Your task to perform on an android device: turn on improve location accuracy Image 0: 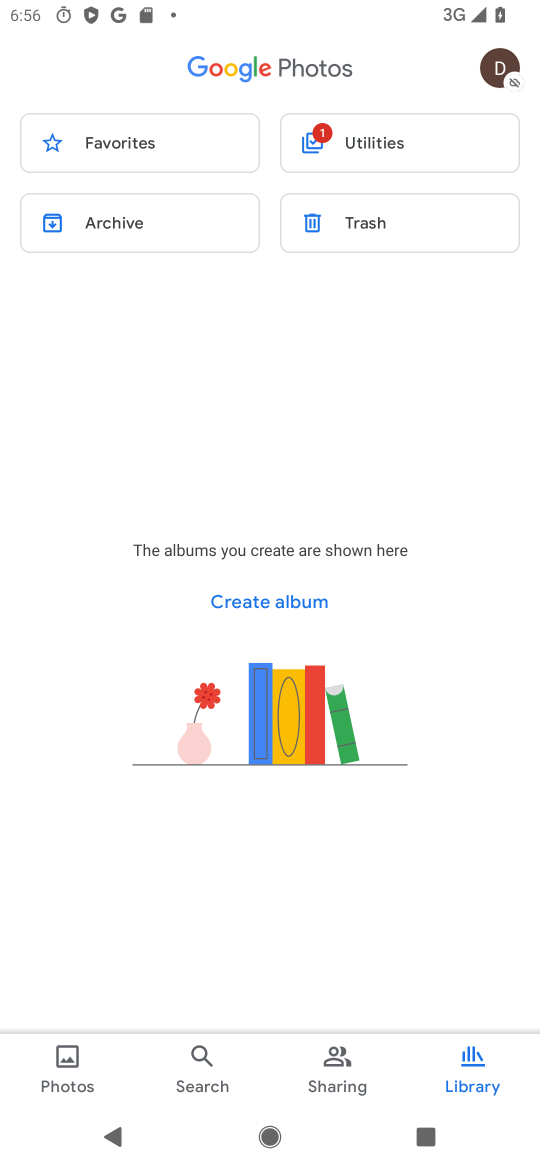
Step 0: press home button
Your task to perform on an android device: turn on improve location accuracy Image 1: 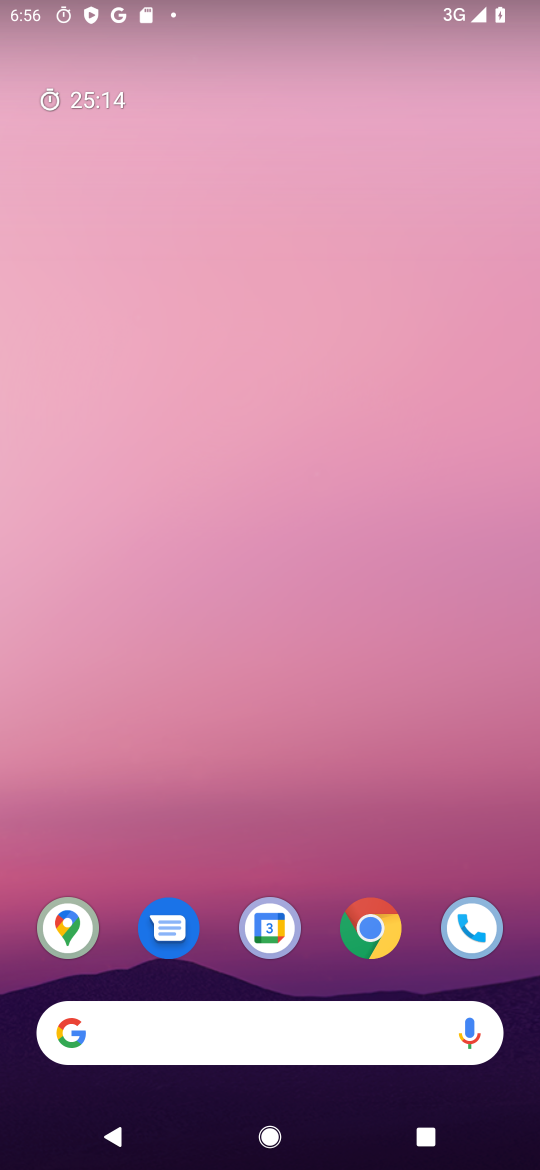
Step 1: drag from (316, 859) to (337, 76)
Your task to perform on an android device: turn on improve location accuracy Image 2: 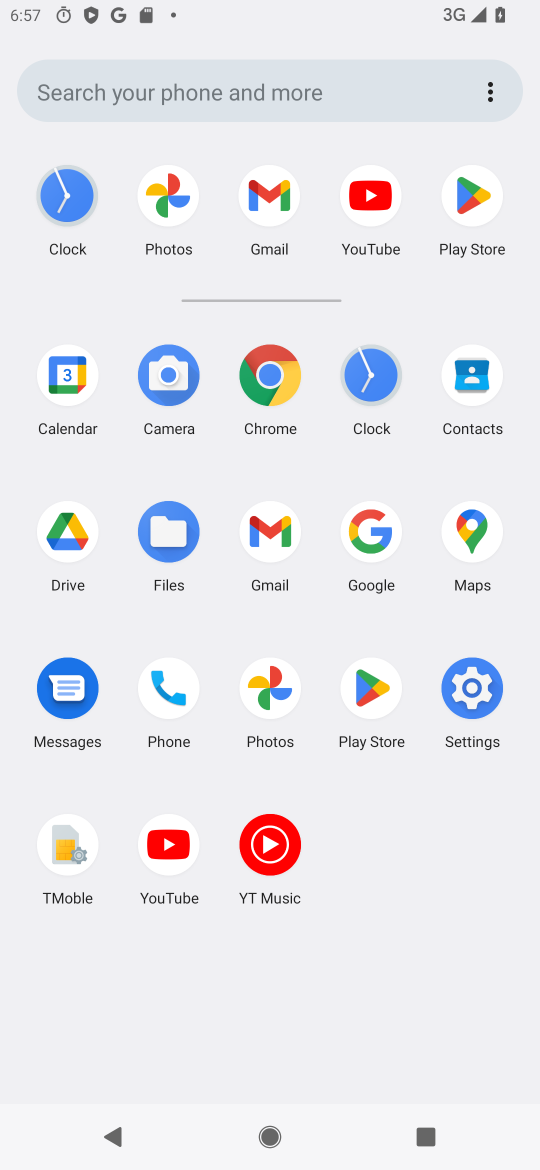
Step 2: click (472, 693)
Your task to perform on an android device: turn on improve location accuracy Image 3: 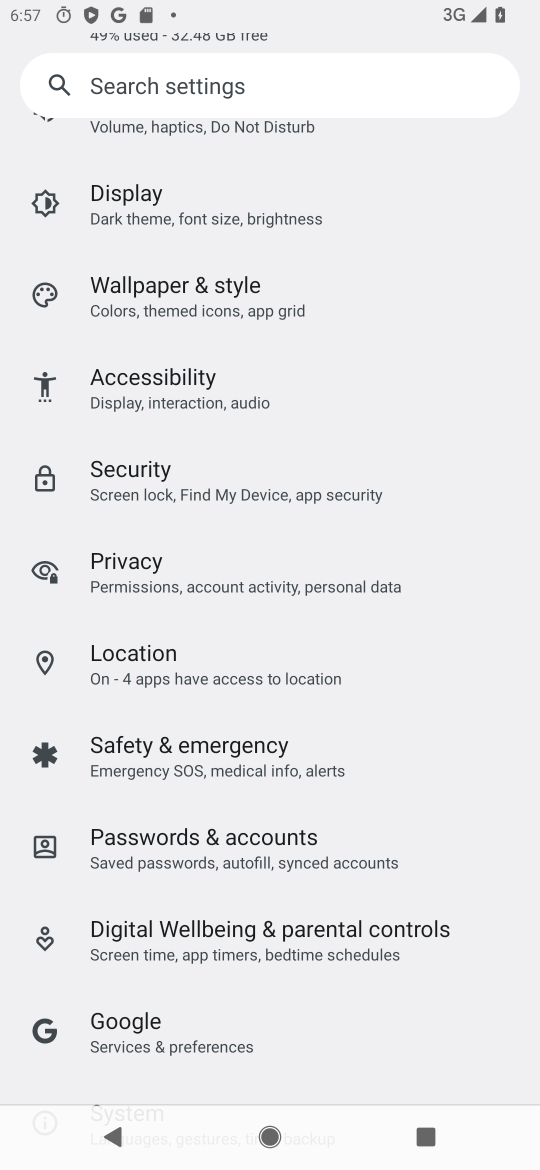
Step 3: drag from (444, 363) to (449, 736)
Your task to perform on an android device: turn on improve location accuracy Image 4: 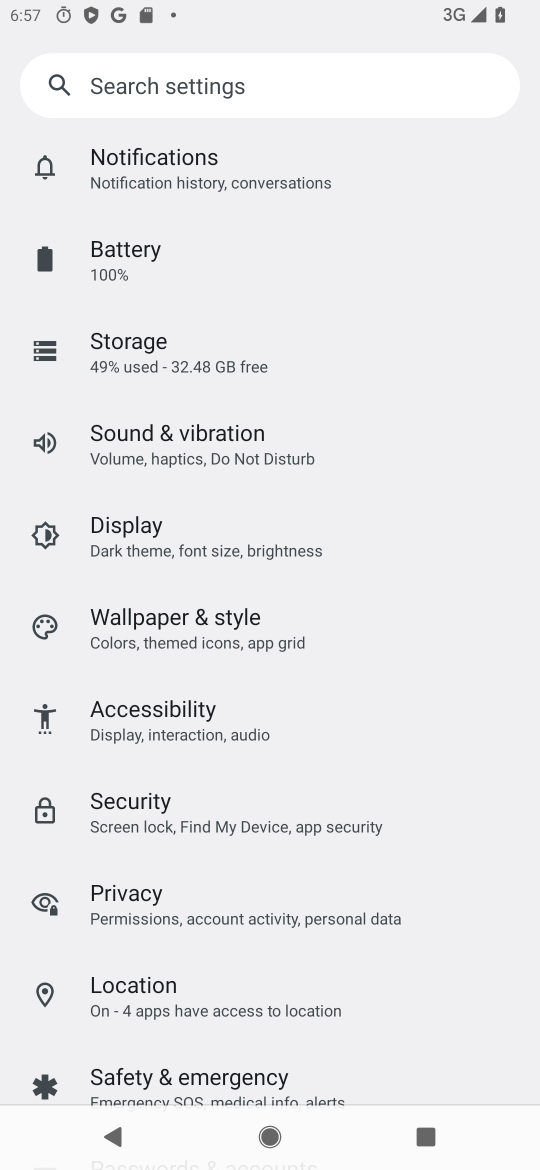
Step 4: drag from (430, 374) to (456, 878)
Your task to perform on an android device: turn on improve location accuracy Image 5: 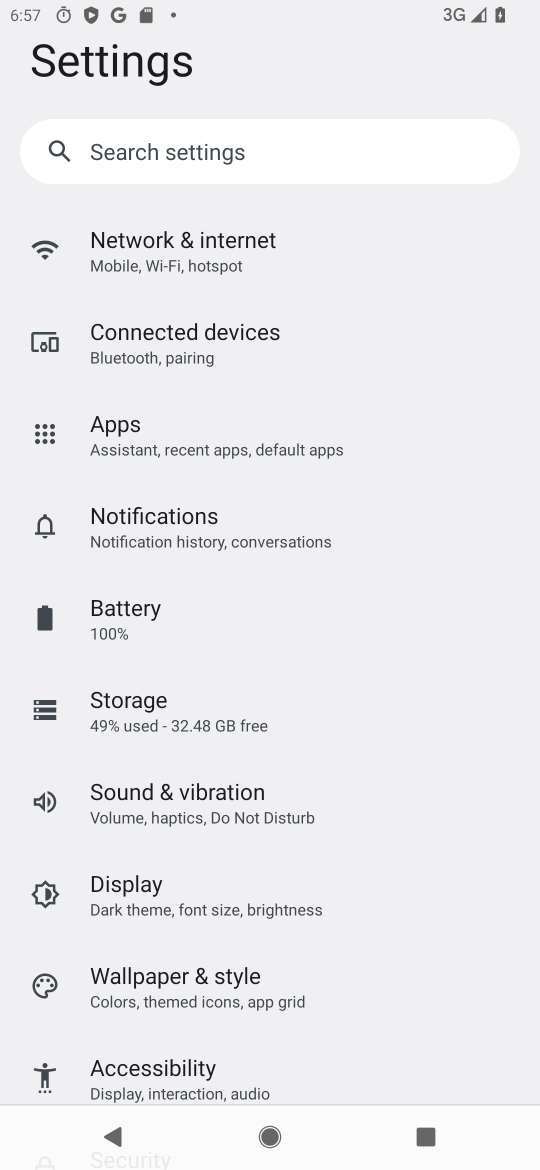
Step 5: drag from (453, 374) to (450, 802)
Your task to perform on an android device: turn on improve location accuracy Image 6: 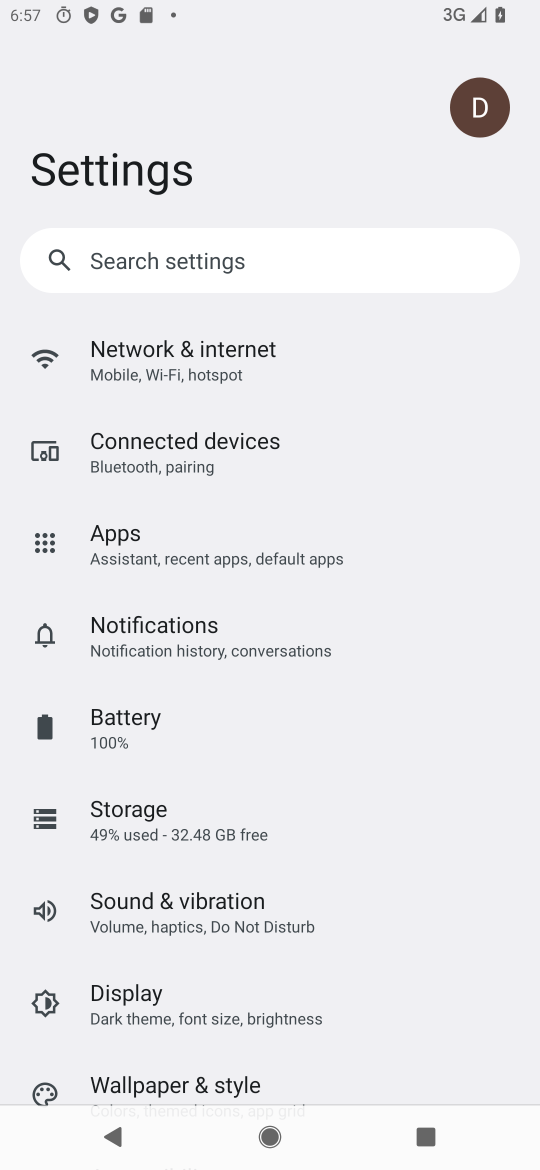
Step 6: drag from (426, 870) to (432, 534)
Your task to perform on an android device: turn on improve location accuracy Image 7: 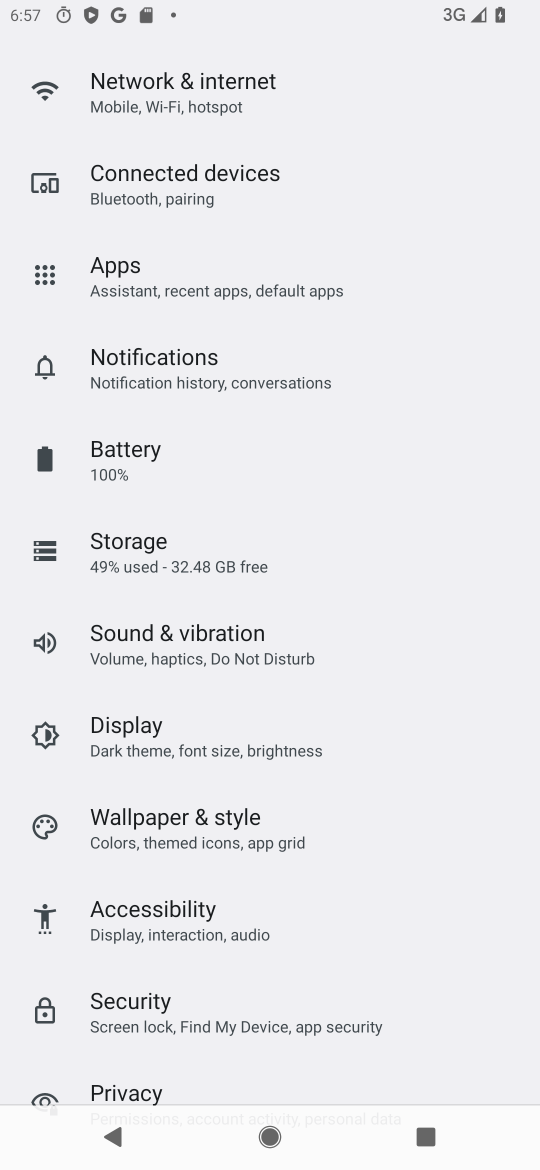
Step 7: drag from (435, 876) to (430, 561)
Your task to perform on an android device: turn on improve location accuracy Image 8: 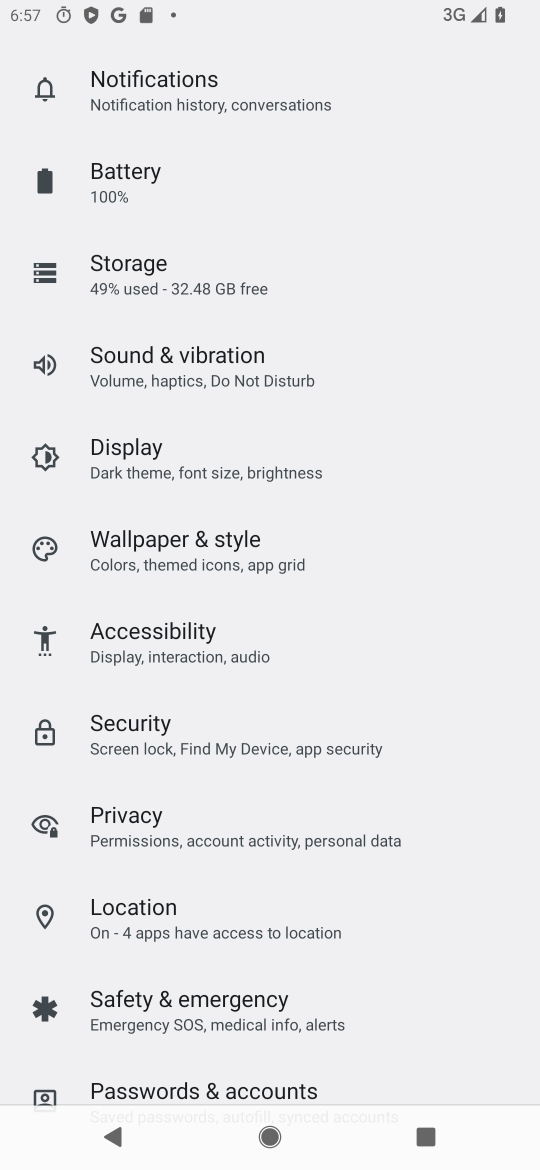
Step 8: drag from (444, 918) to (432, 567)
Your task to perform on an android device: turn on improve location accuracy Image 9: 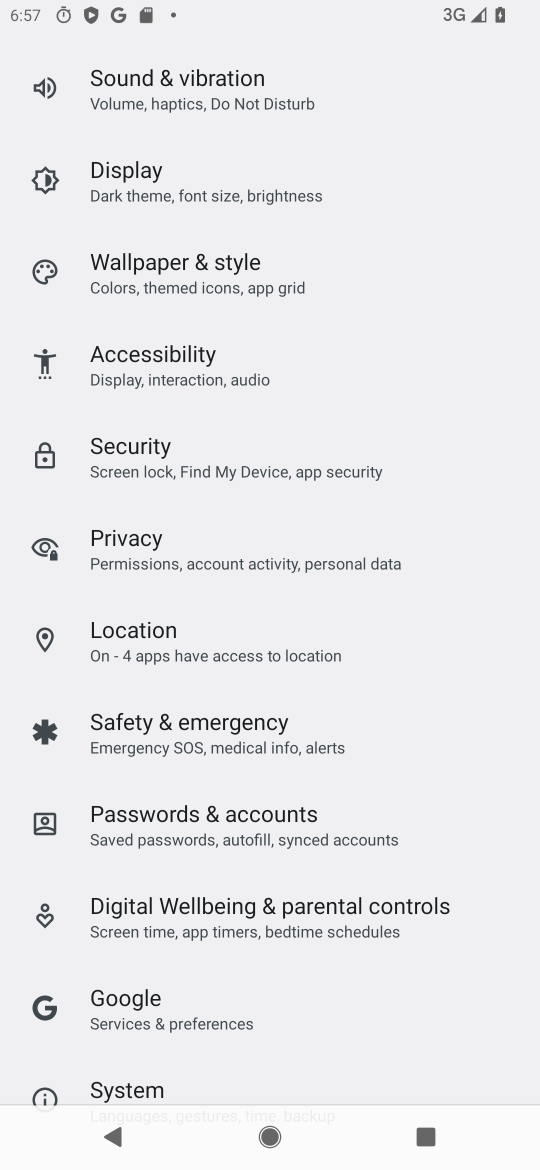
Step 9: drag from (427, 995) to (447, 628)
Your task to perform on an android device: turn on improve location accuracy Image 10: 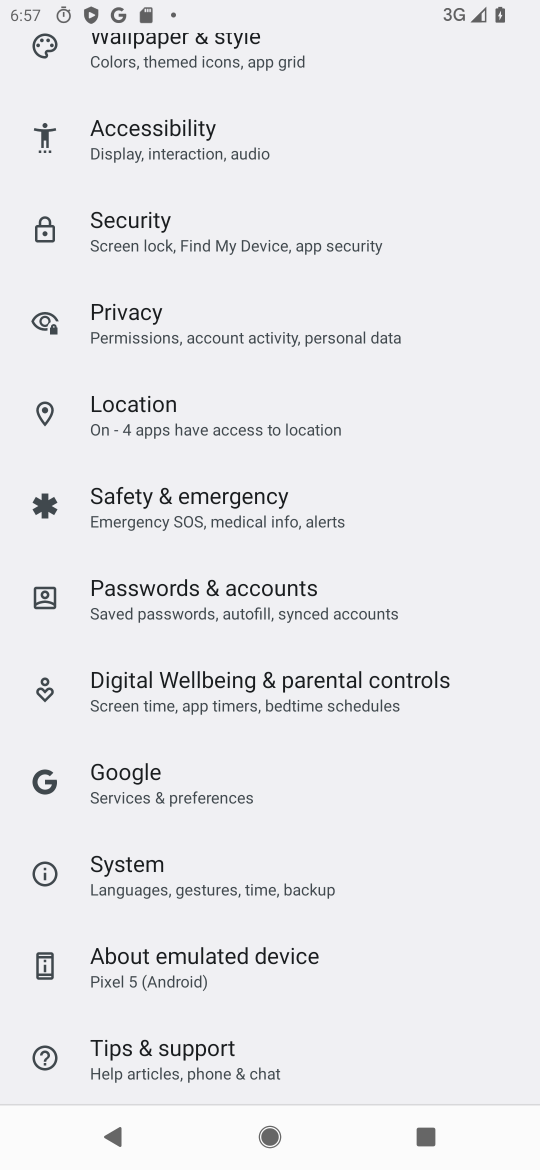
Step 10: drag from (456, 455) to (474, 852)
Your task to perform on an android device: turn on improve location accuracy Image 11: 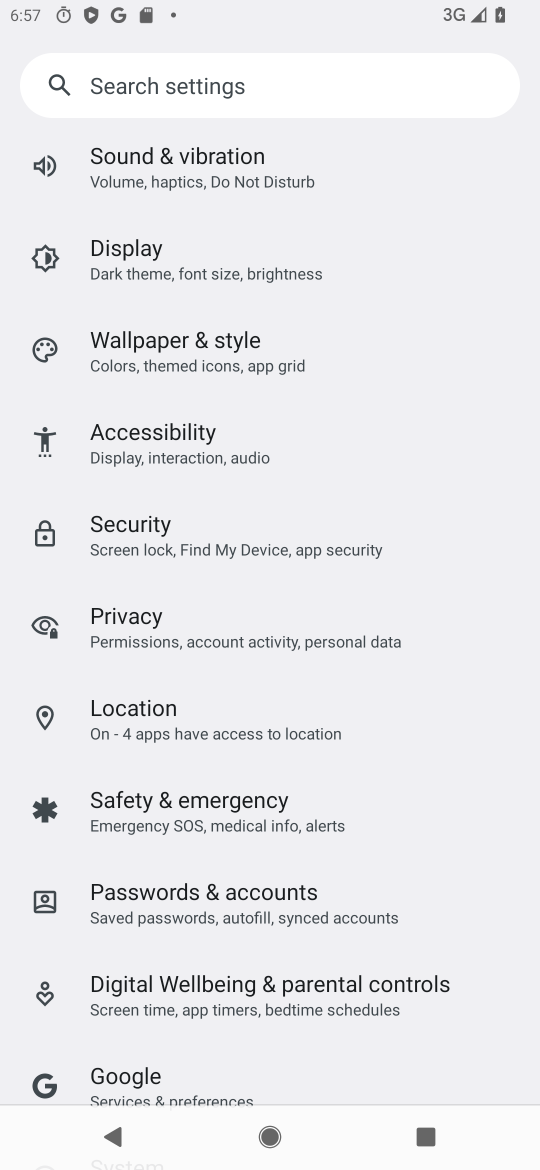
Step 11: drag from (447, 383) to (456, 759)
Your task to perform on an android device: turn on improve location accuracy Image 12: 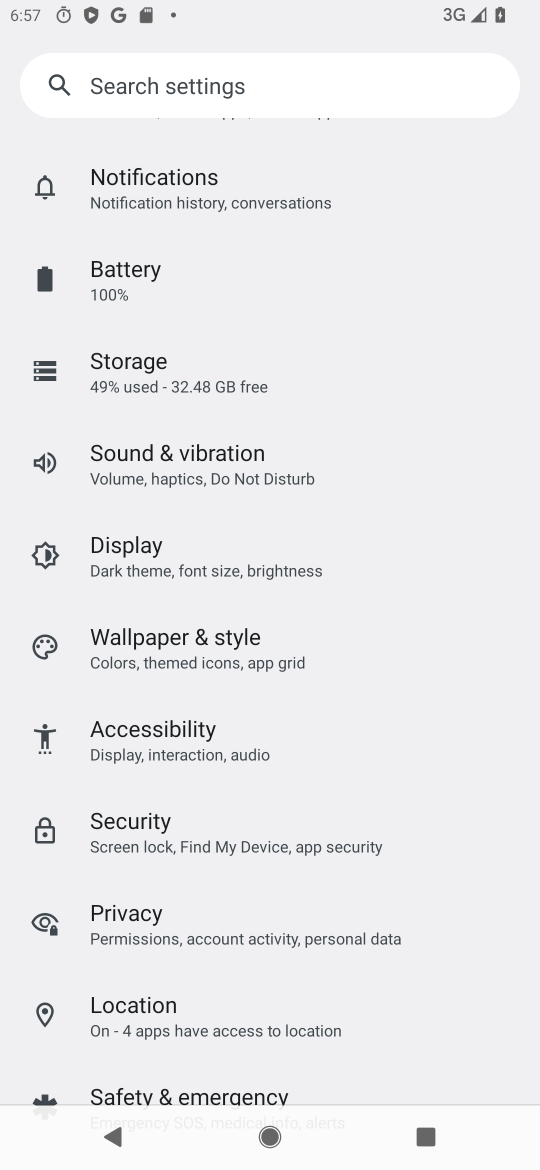
Step 12: drag from (428, 316) to (416, 752)
Your task to perform on an android device: turn on improve location accuracy Image 13: 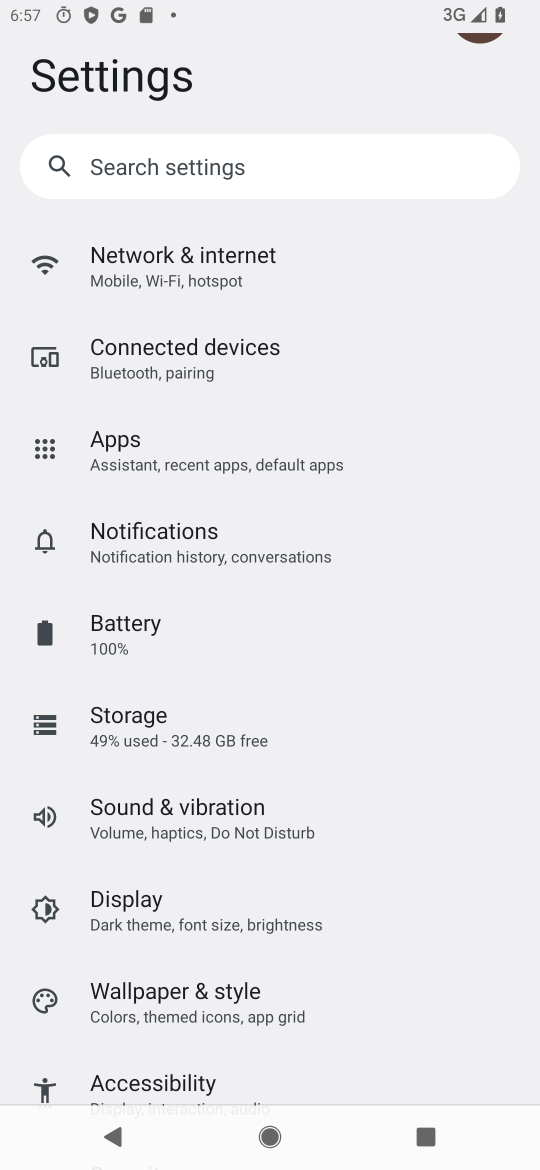
Step 13: drag from (447, 598) to (447, 677)
Your task to perform on an android device: turn on improve location accuracy Image 14: 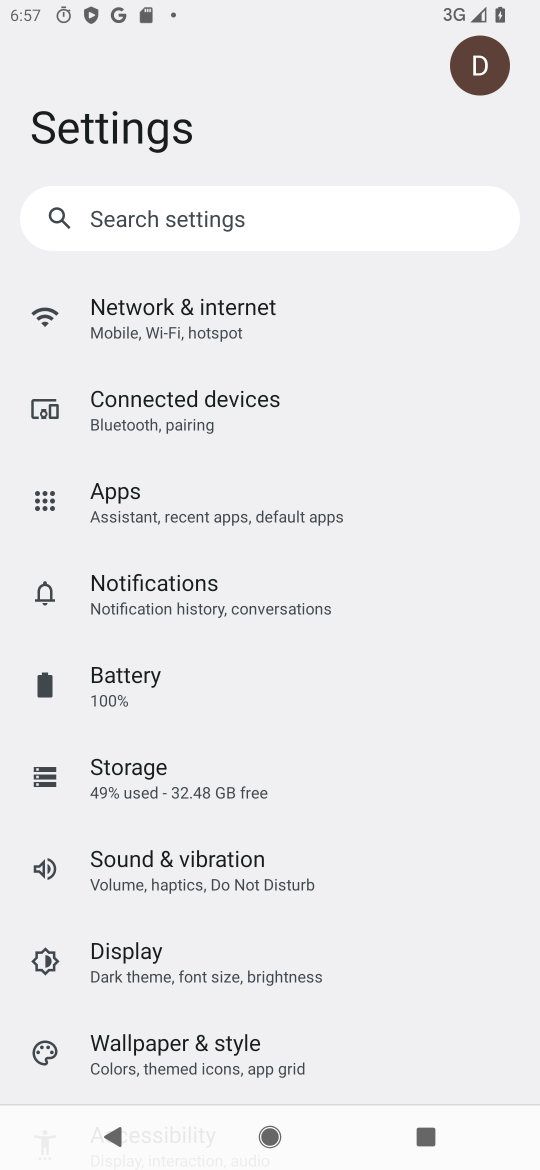
Step 14: drag from (404, 909) to (406, 591)
Your task to perform on an android device: turn on improve location accuracy Image 15: 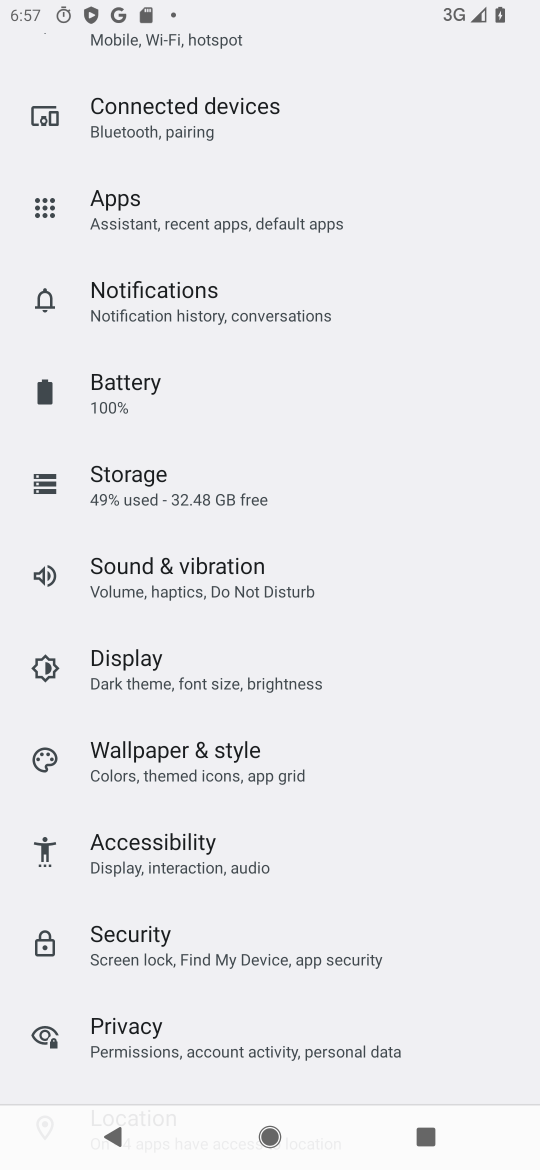
Step 15: drag from (427, 892) to (430, 616)
Your task to perform on an android device: turn on improve location accuracy Image 16: 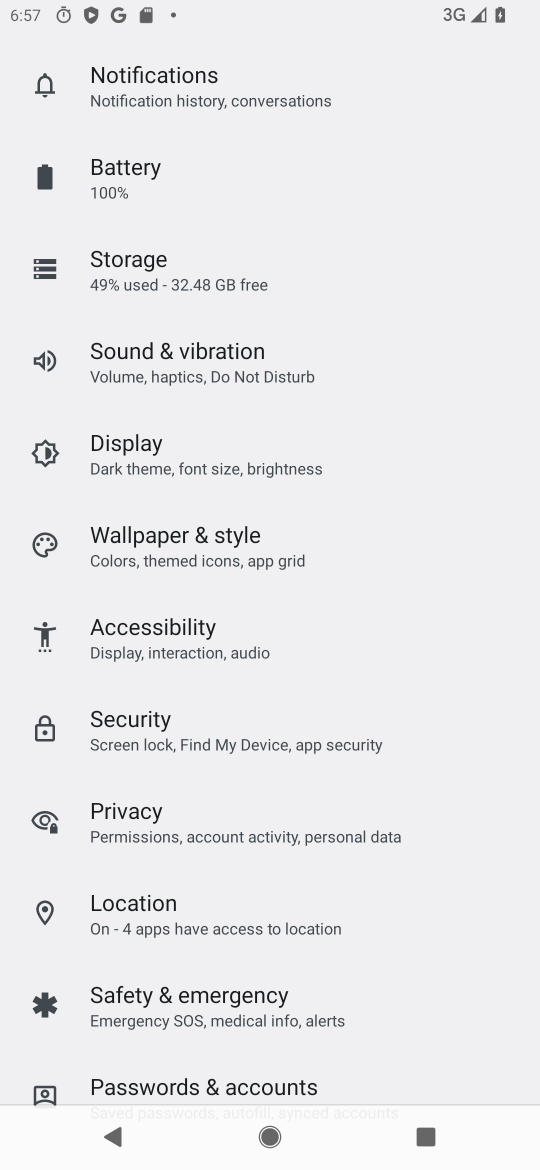
Step 16: drag from (430, 913) to (417, 678)
Your task to perform on an android device: turn on improve location accuracy Image 17: 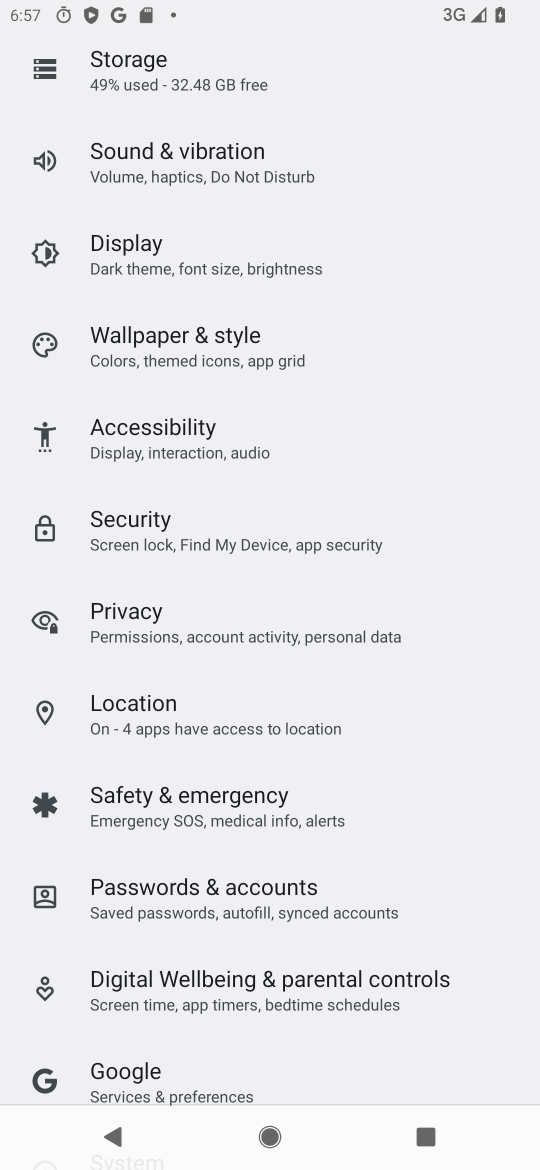
Step 17: drag from (418, 832) to (443, 558)
Your task to perform on an android device: turn on improve location accuracy Image 18: 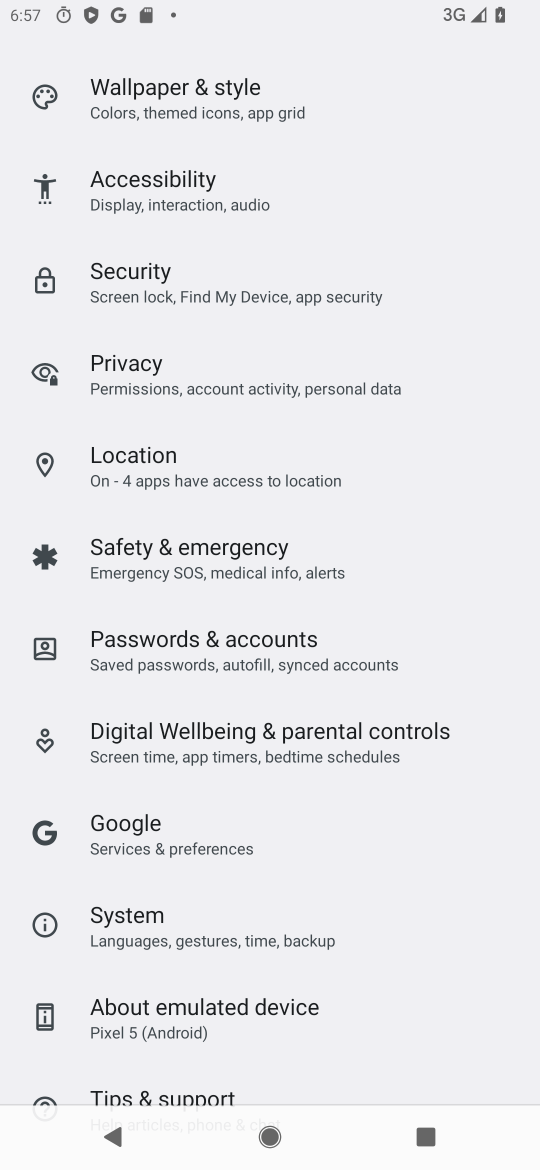
Step 18: drag from (450, 411) to (427, 788)
Your task to perform on an android device: turn on improve location accuracy Image 19: 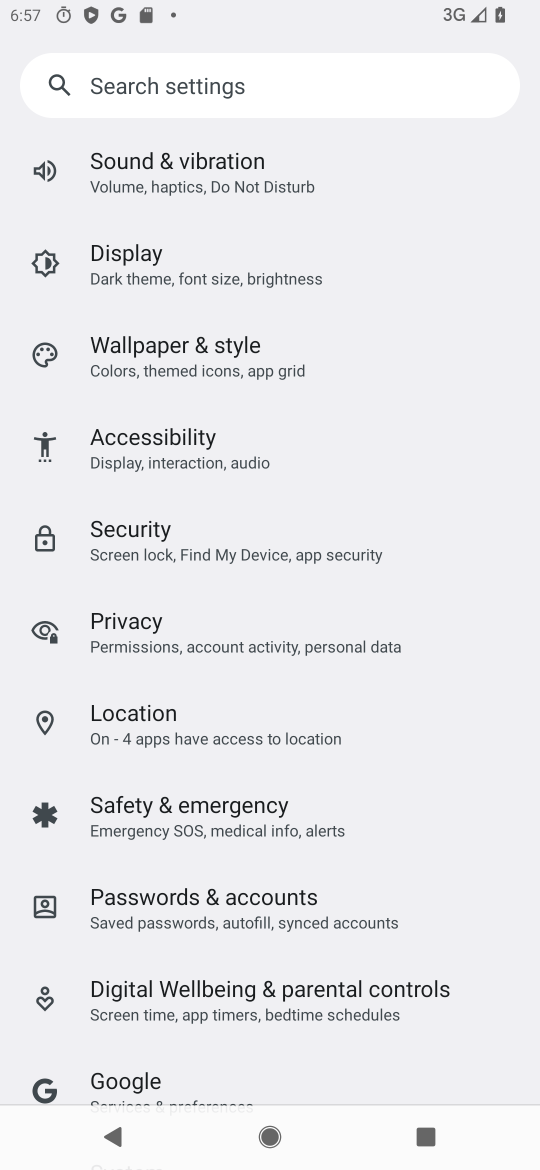
Step 19: drag from (425, 449) to (425, 806)
Your task to perform on an android device: turn on improve location accuracy Image 20: 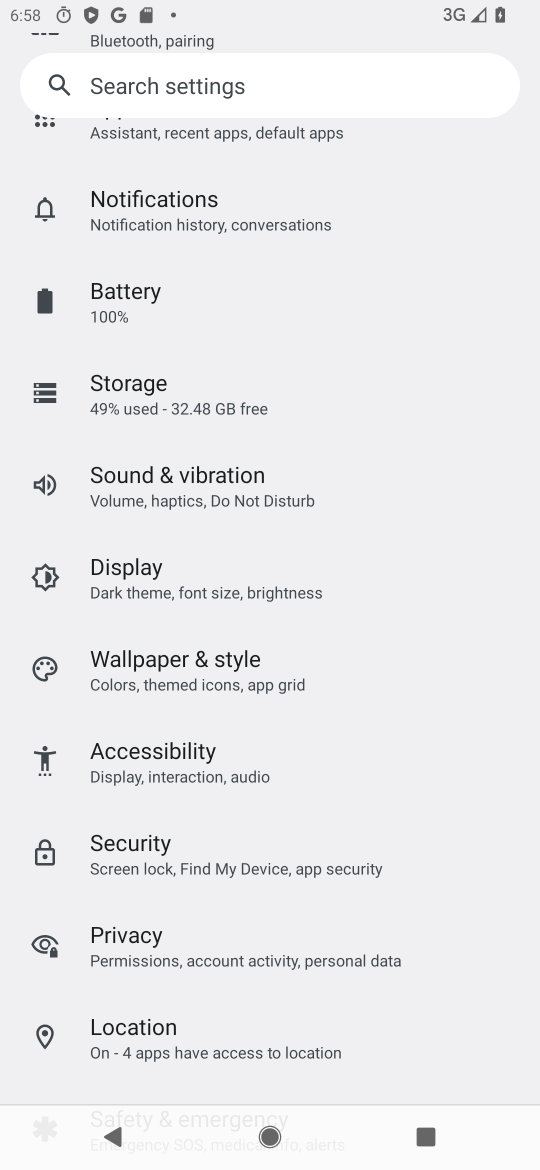
Step 20: drag from (430, 359) to (442, 816)
Your task to perform on an android device: turn on improve location accuracy Image 21: 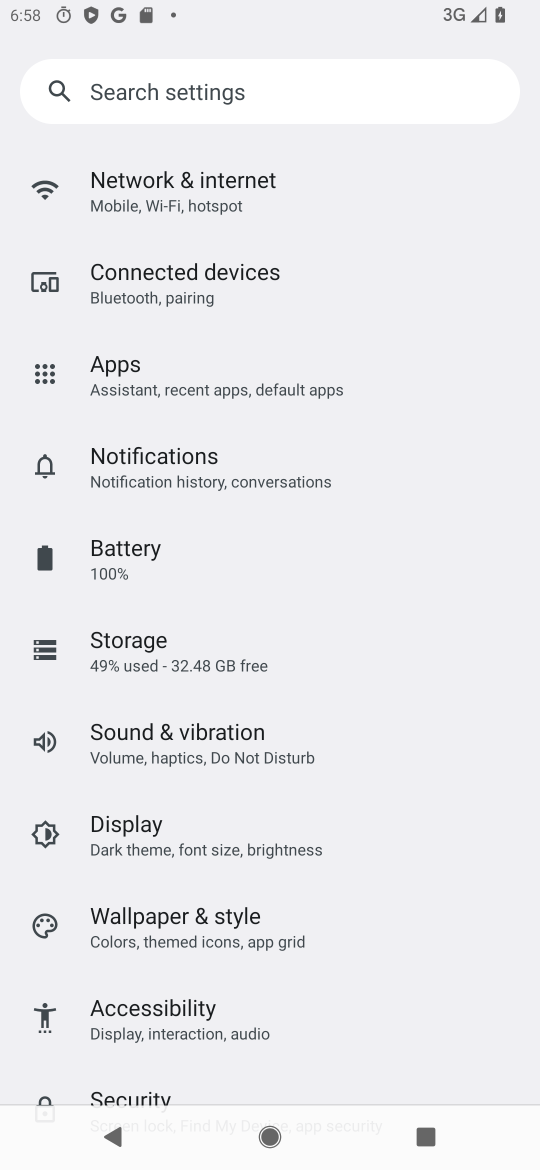
Step 21: drag from (448, 311) to (409, 817)
Your task to perform on an android device: turn on improve location accuracy Image 22: 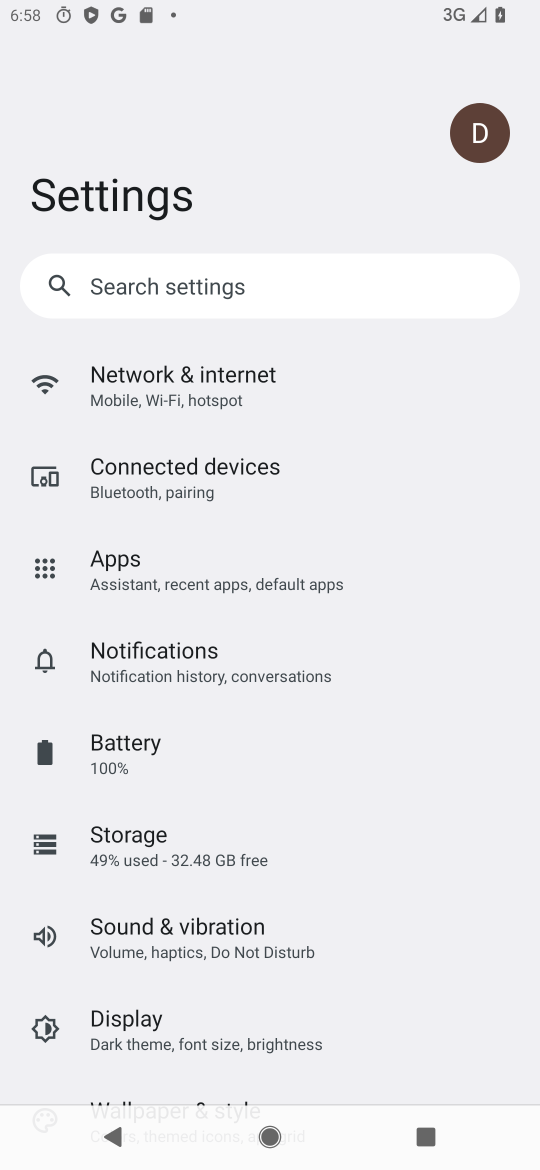
Step 22: drag from (412, 870) to (390, 534)
Your task to perform on an android device: turn on improve location accuracy Image 23: 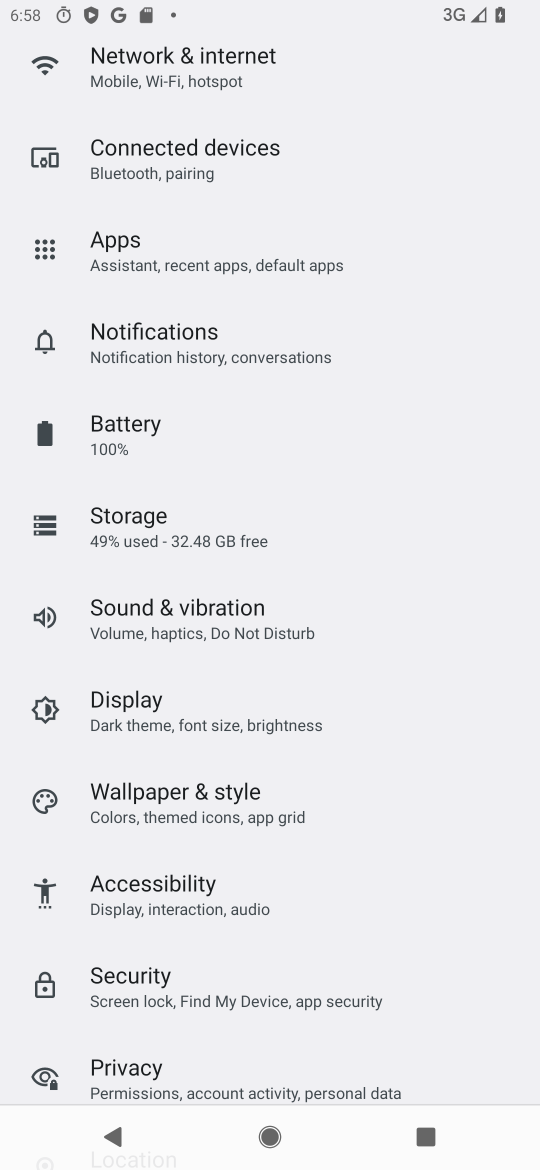
Step 23: drag from (430, 892) to (412, 643)
Your task to perform on an android device: turn on improve location accuracy Image 24: 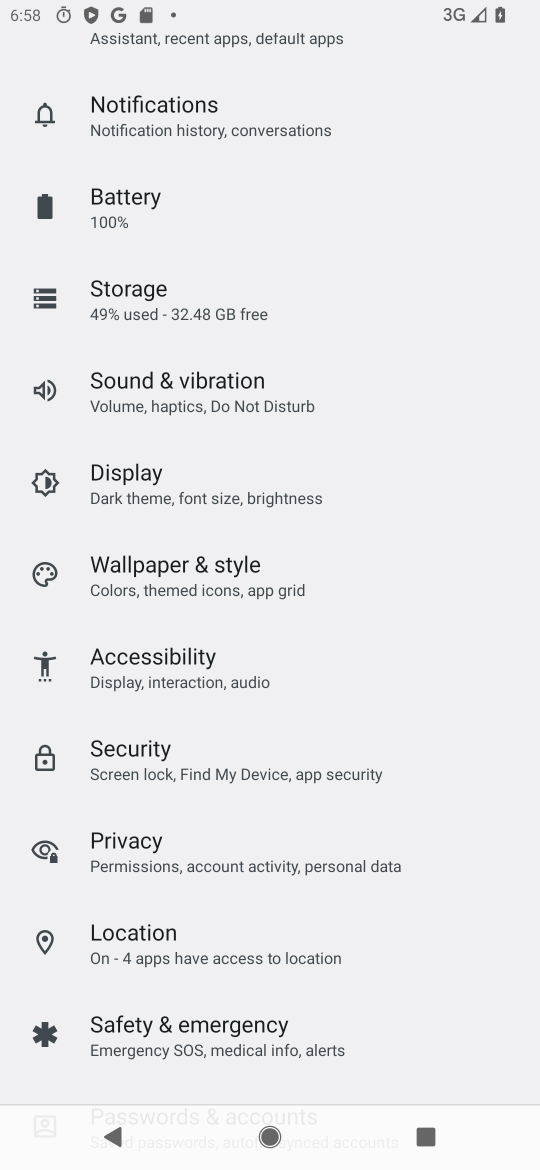
Step 24: drag from (411, 988) to (409, 588)
Your task to perform on an android device: turn on improve location accuracy Image 25: 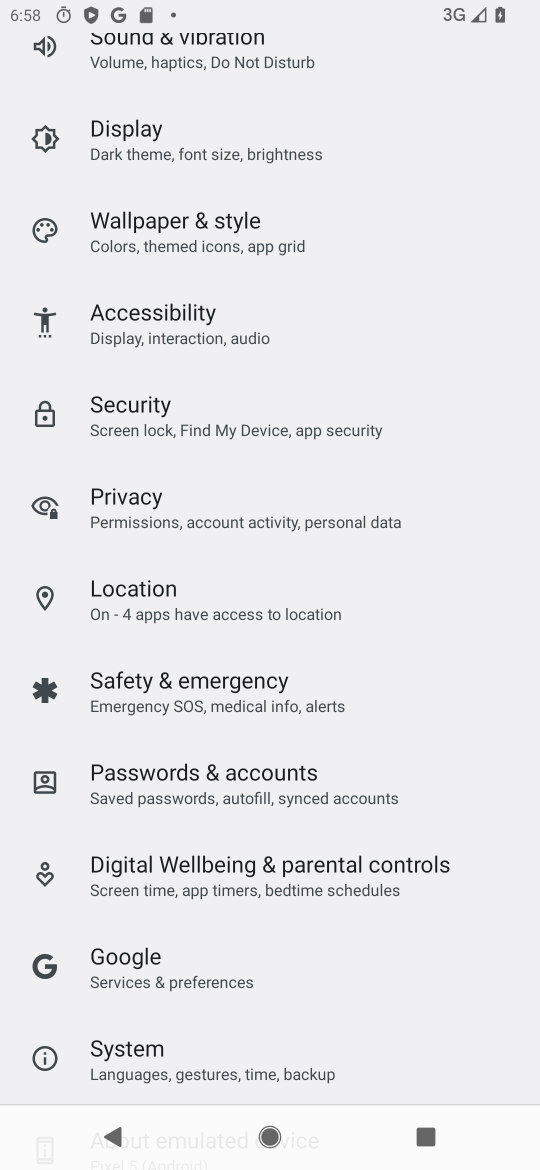
Step 25: drag from (433, 348) to (432, 844)
Your task to perform on an android device: turn on improve location accuracy Image 26: 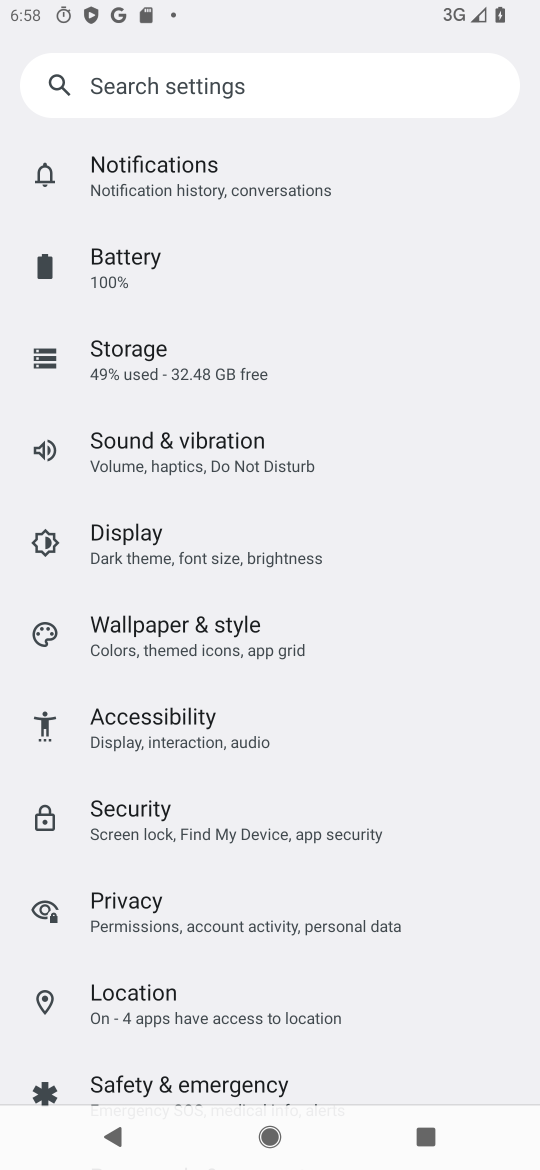
Step 26: drag from (426, 342) to (429, 828)
Your task to perform on an android device: turn on improve location accuracy Image 27: 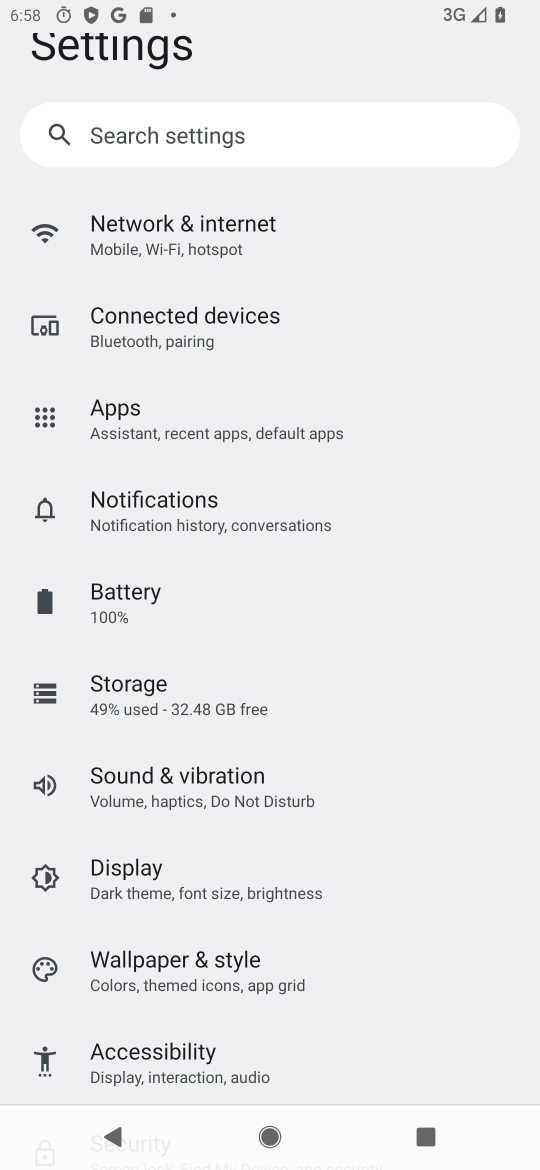
Step 27: drag from (426, 386) to (450, 859)
Your task to perform on an android device: turn on improve location accuracy Image 28: 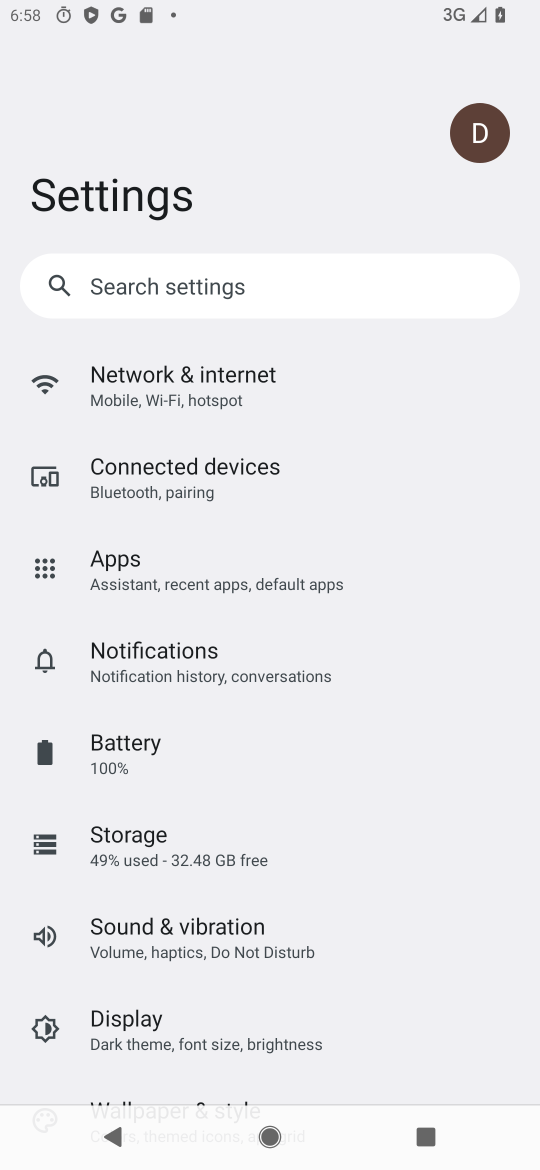
Step 28: drag from (385, 890) to (400, 451)
Your task to perform on an android device: turn on improve location accuracy Image 29: 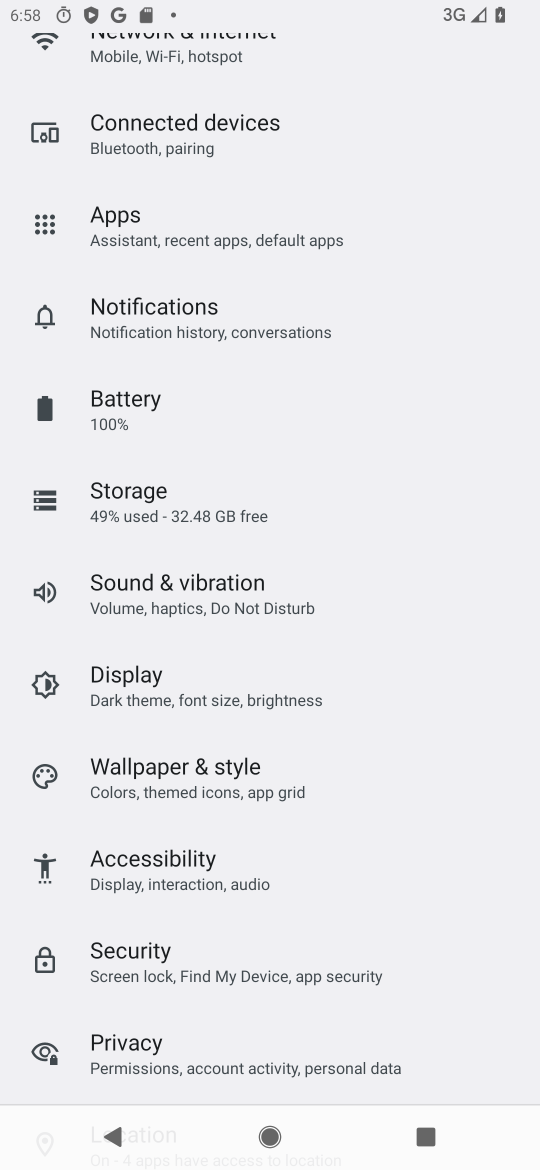
Step 29: drag from (414, 891) to (400, 492)
Your task to perform on an android device: turn on improve location accuracy Image 30: 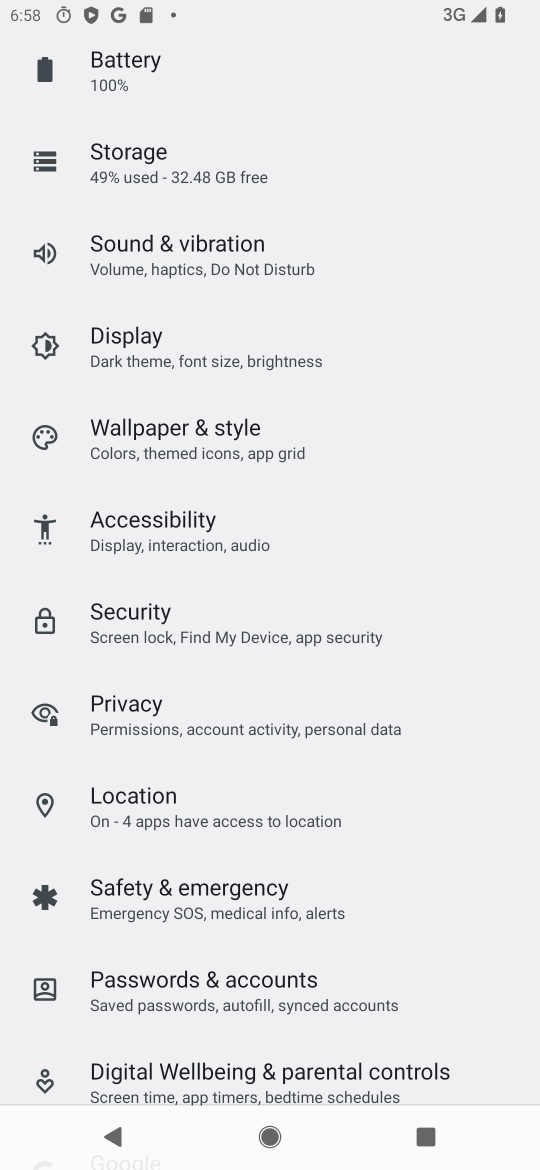
Step 30: click (328, 817)
Your task to perform on an android device: turn on improve location accuracy Image 31: 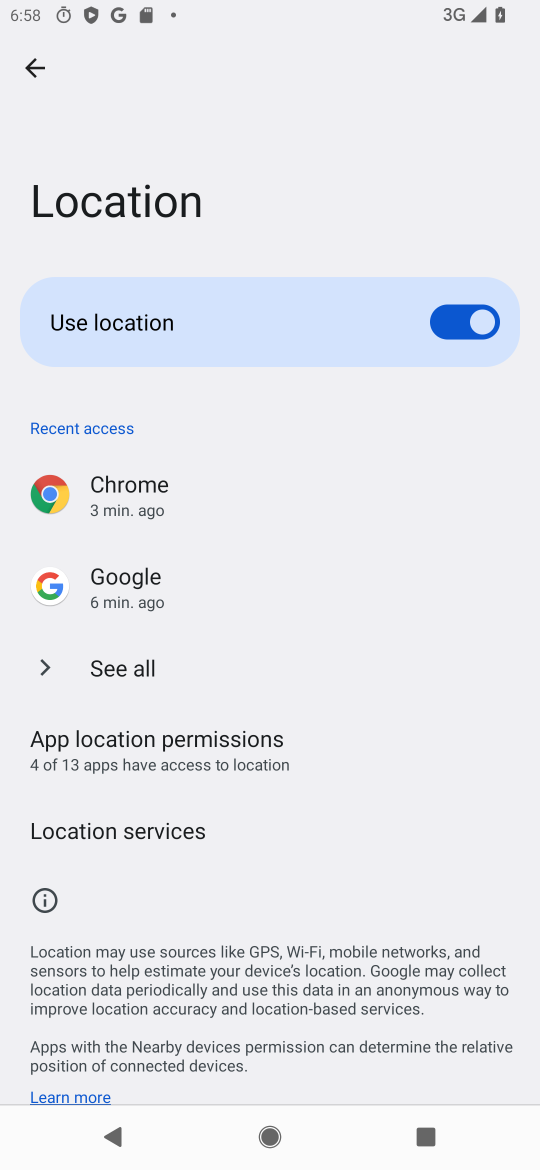
Step 31: click (198, 830)
Your task to perform on an android device: turn on improve location accuracy Image 32: 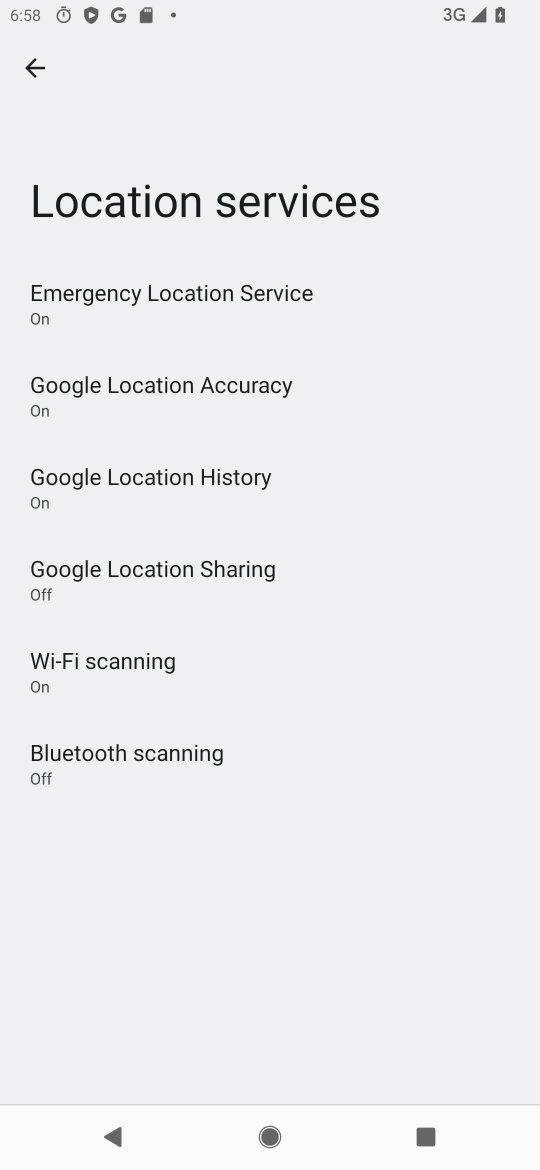
Step 32: click (195, 394)
Your task to perform on an android device: turn on improve location accuracy Image 33: 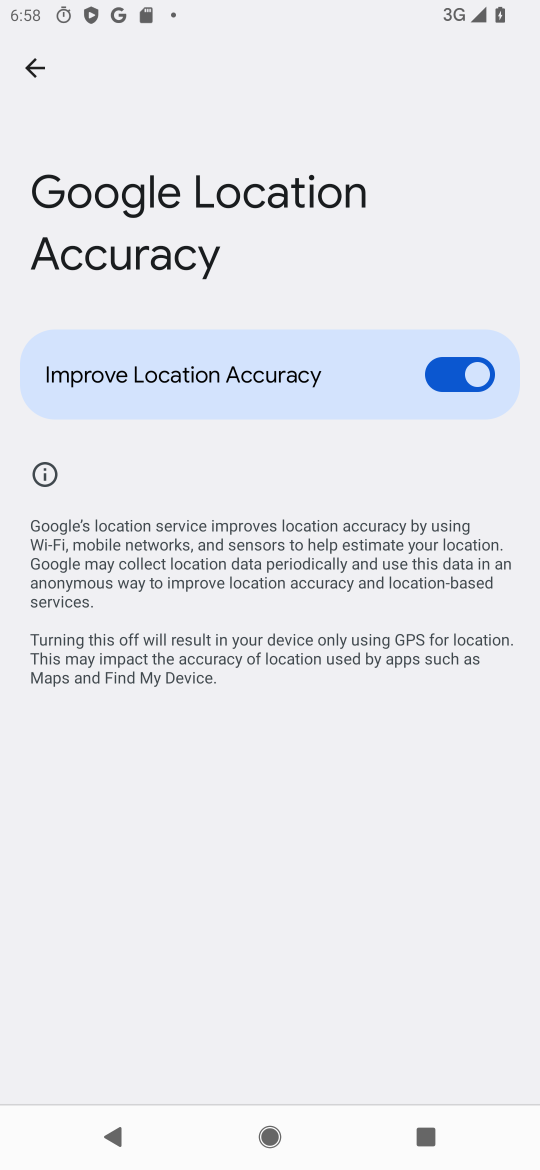
Step 33: task complete